Your task to perform on an android device: Add razer huntsman to the cart on target Image 0: 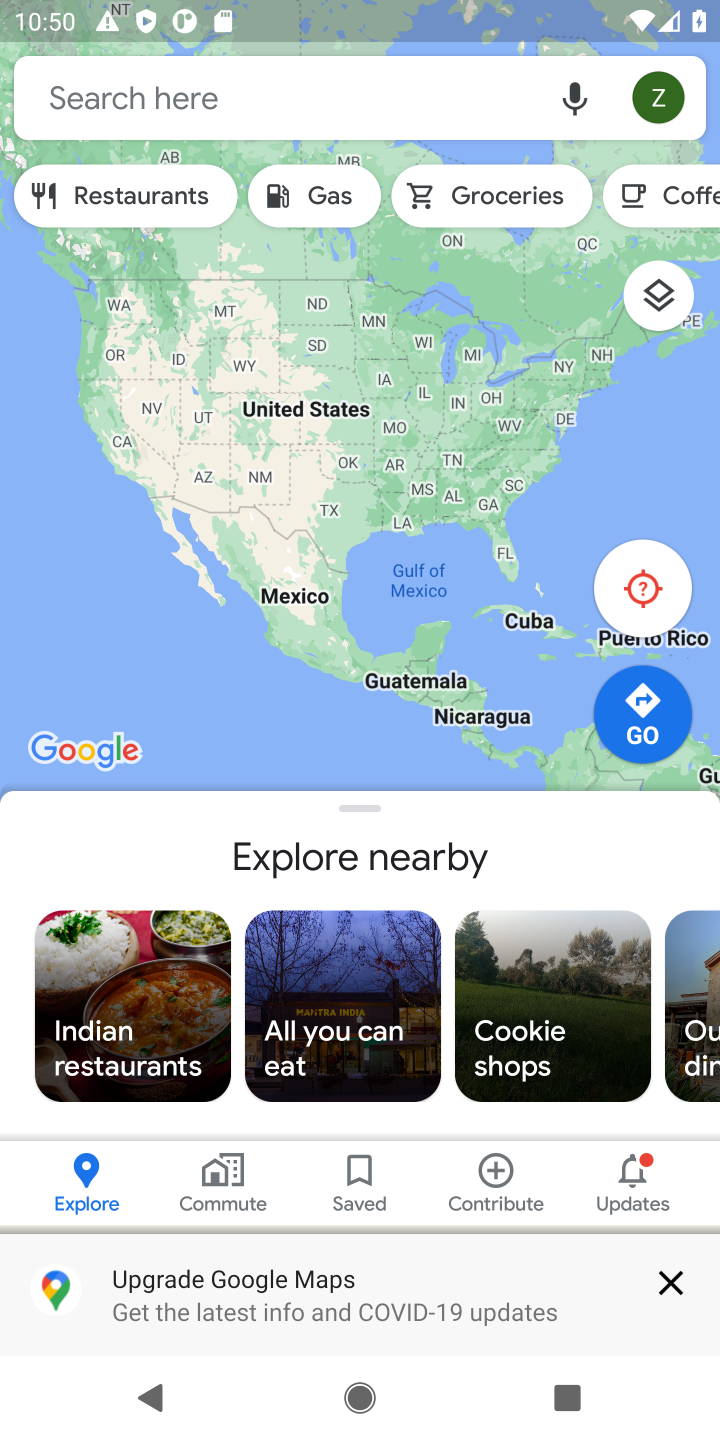
Step 0: press home button
Your task to perform on an android device: Add razer huntsman to the cart on target Image 1: 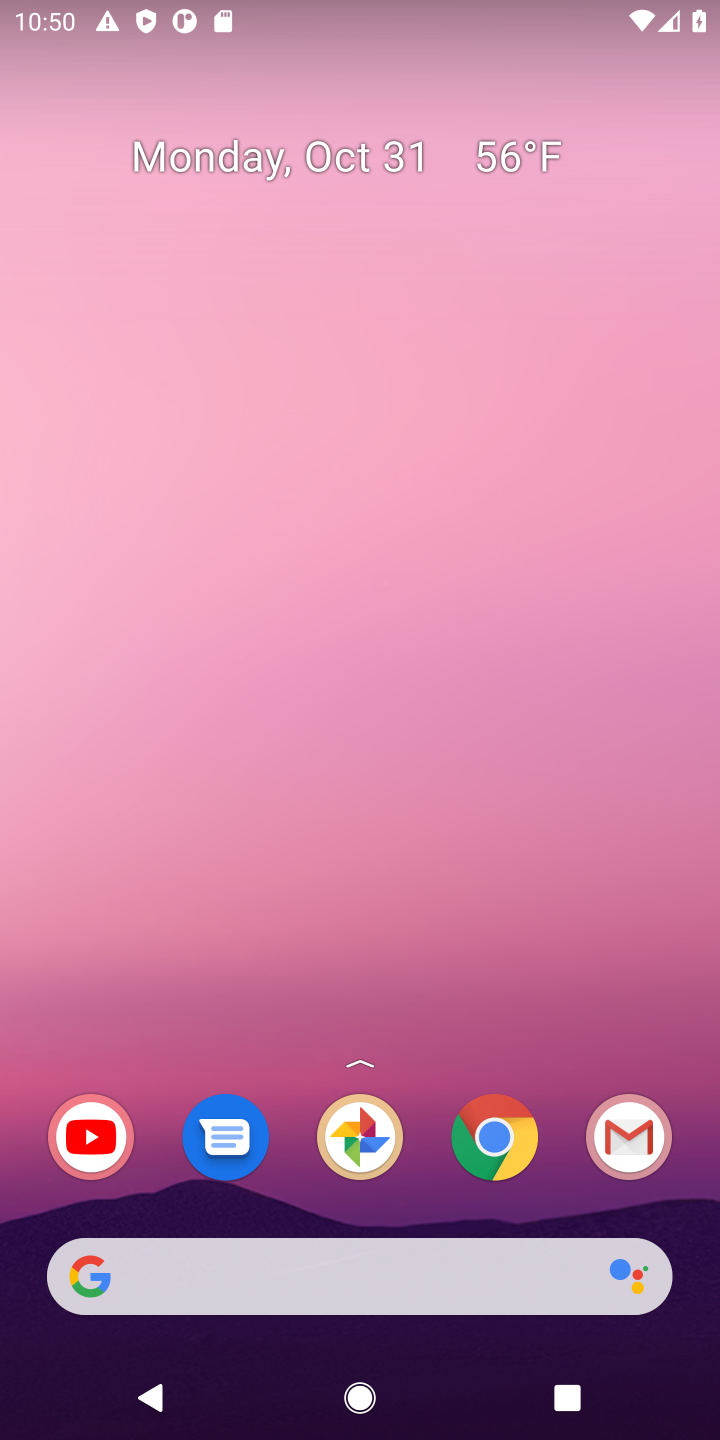
Step 1: click (496, 1140)
Your task to perform on an android device: Add razer huntsman to the cart on target Image 2: 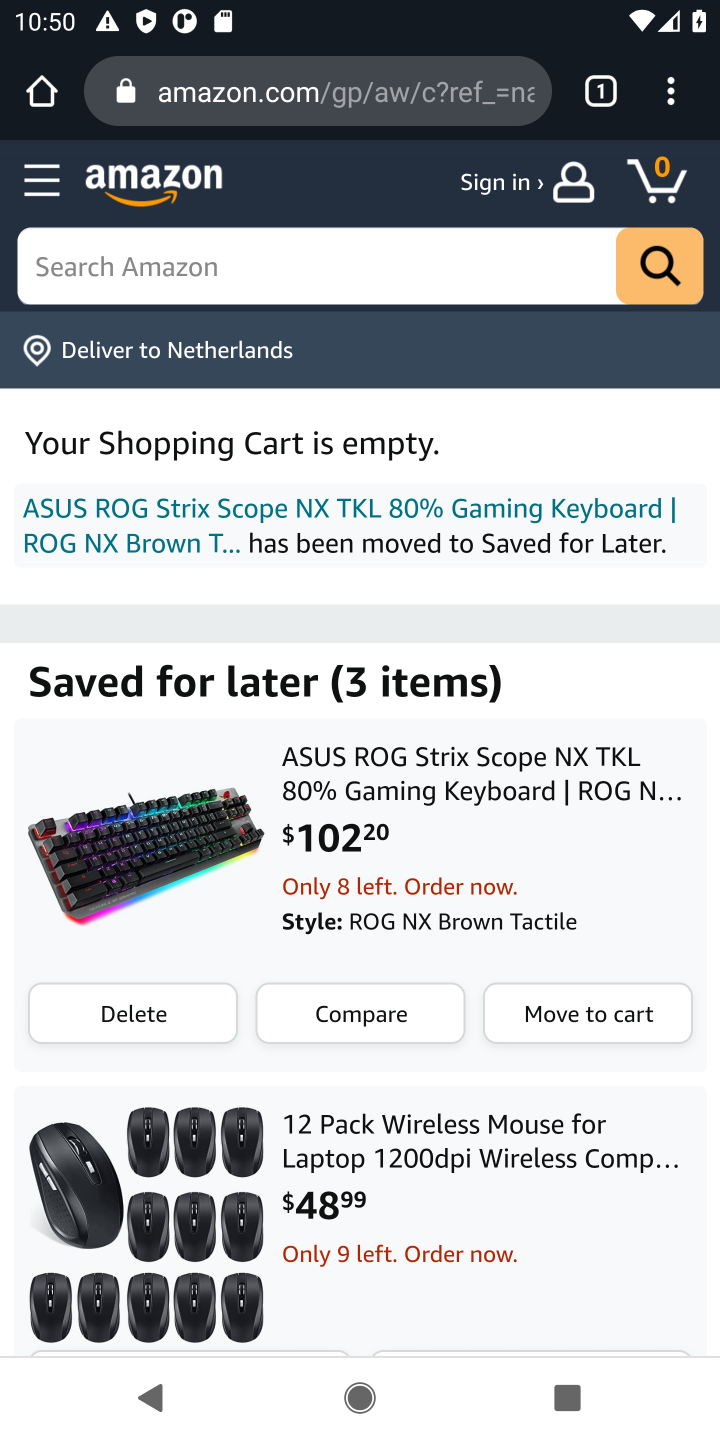
Step 2: click (290, 97)
Your task to perform on an android device: Add razer huntsman to the cart on target Image 3: 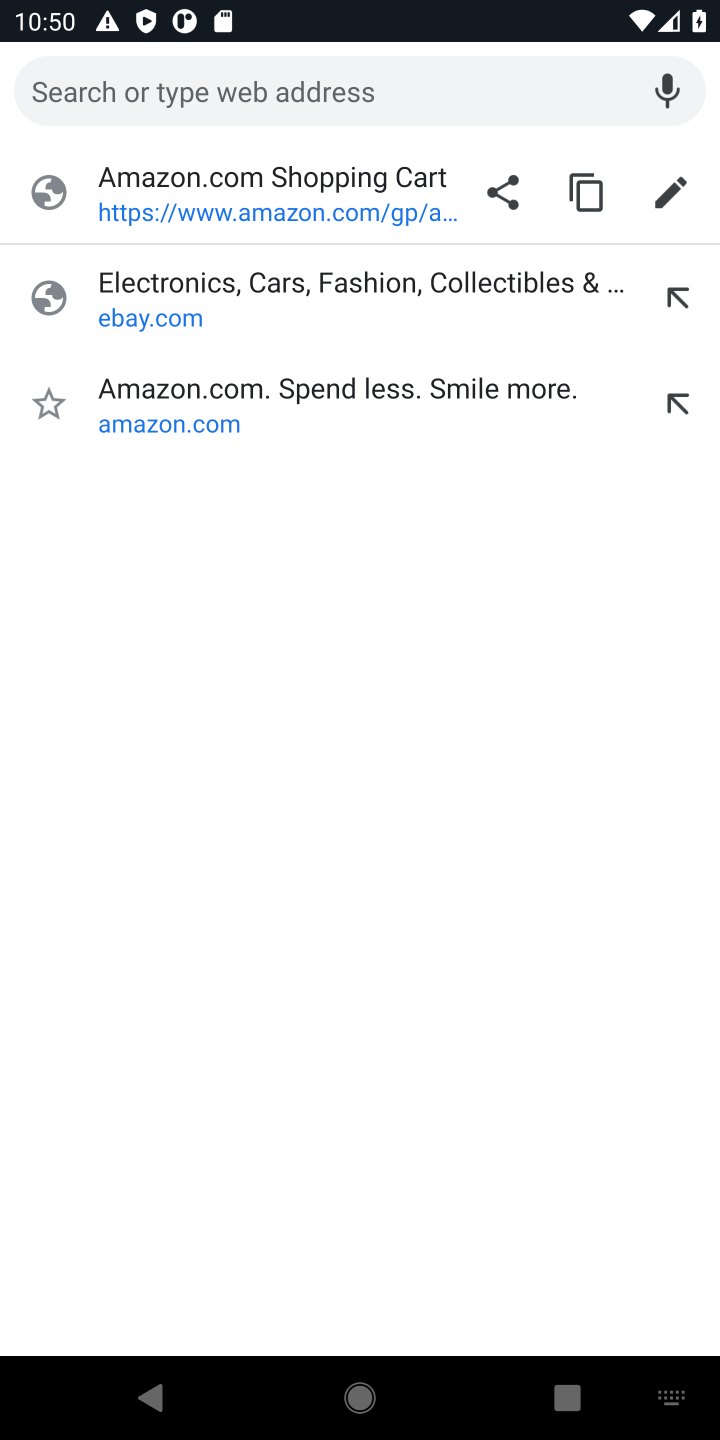
Step 3: type "target"
Your task to perform on an android device: Add razer huntsman to the cart on target Image 4: 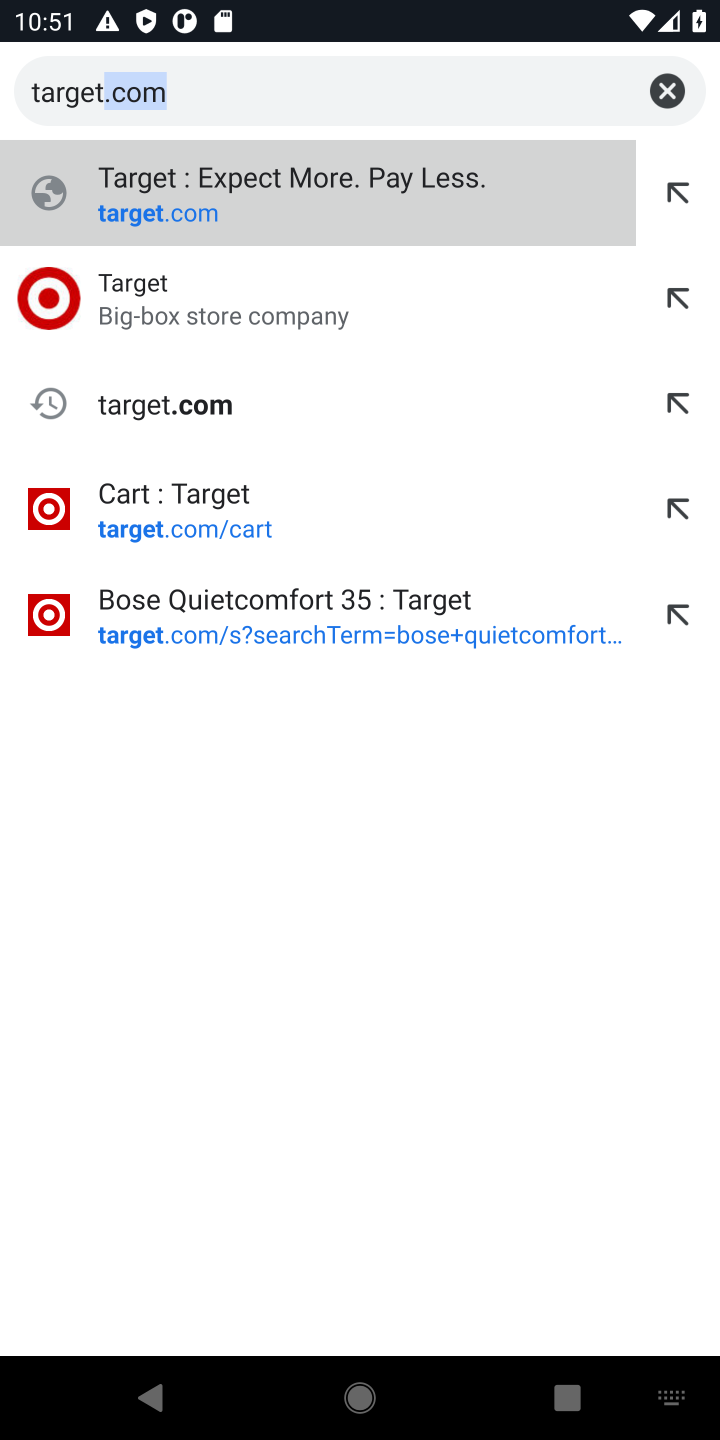
Step 4: click (109, 298)
Your task to perform on an android device: Add razer huntsman to the cart on target Image 5: 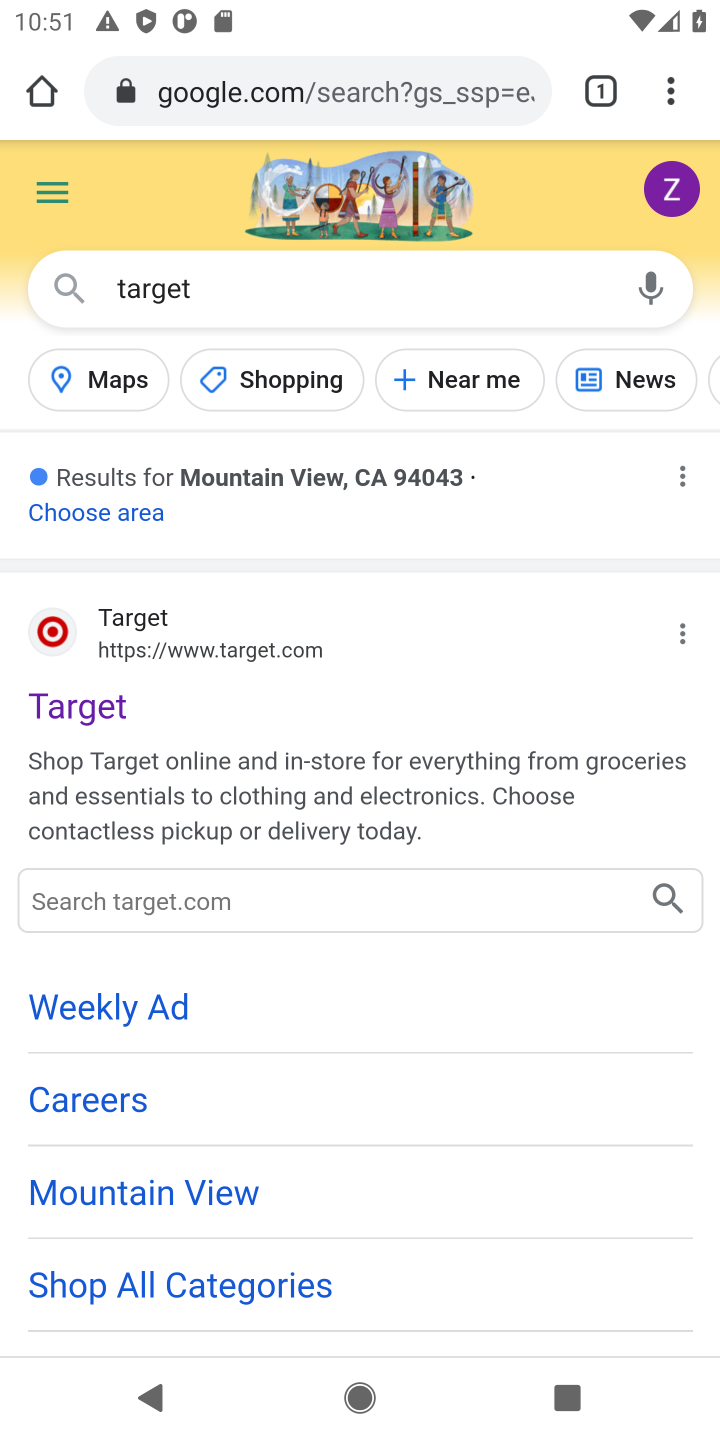
Step 5: click (161, 648)
Your task to perform on an android device: Add razer huntsman to the cart on target Image 6: 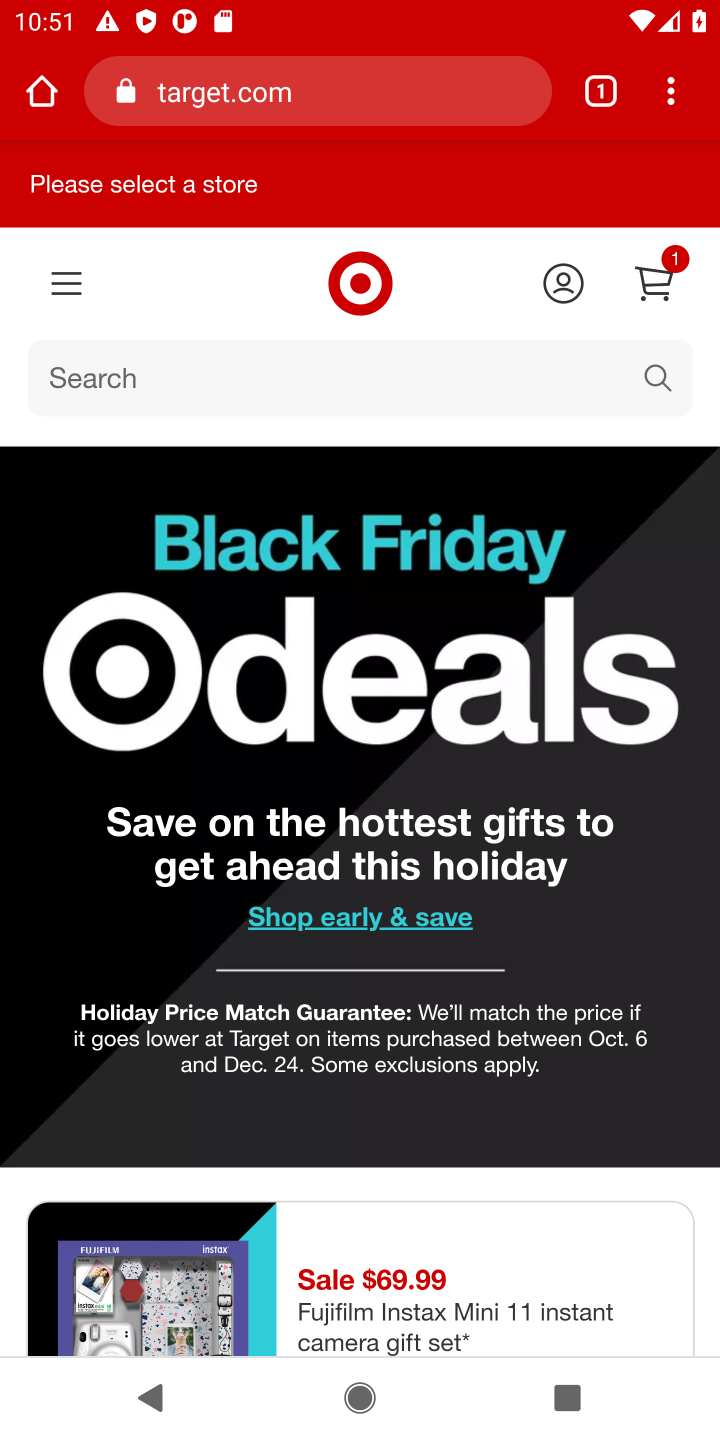
Step 6: click (307, 372)
Your task to perform on an android device: Add razer huntsman to the cart on target Image 7: 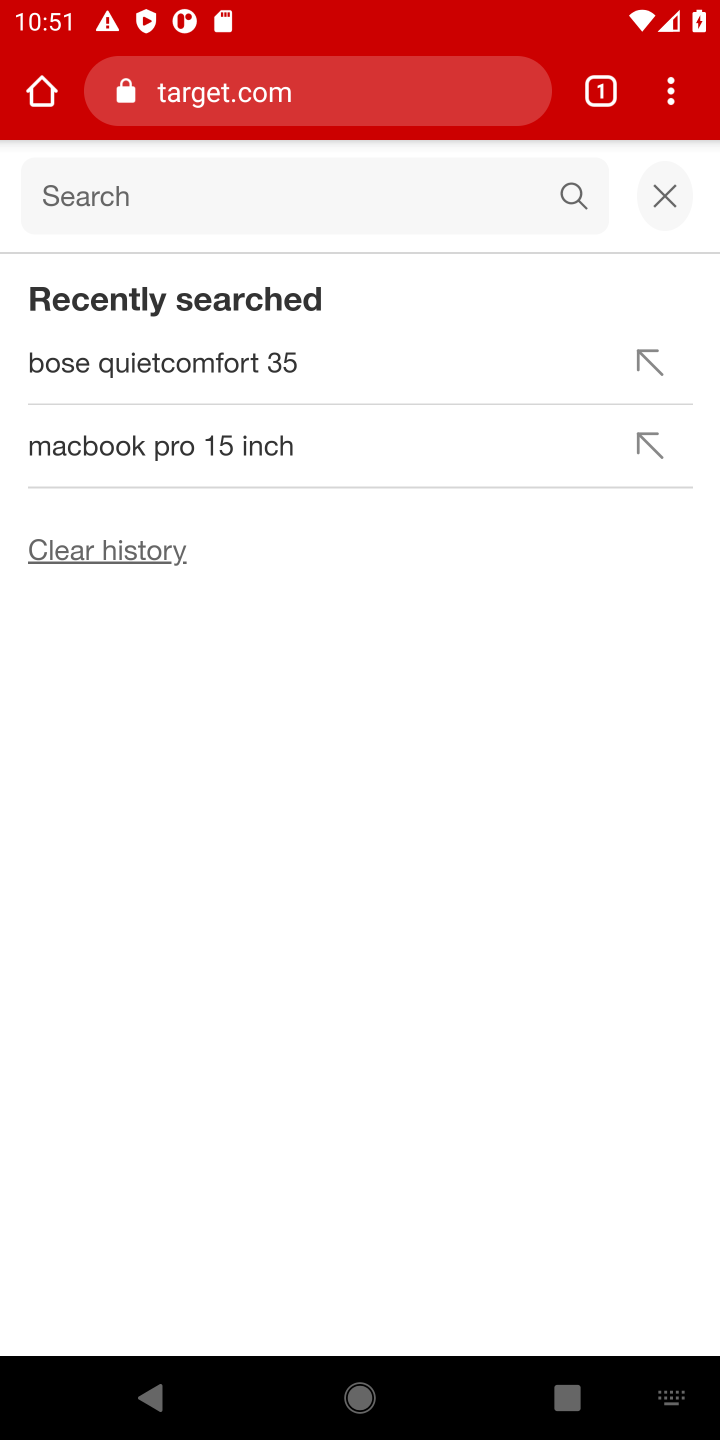
Step 7: type "razer huntsman"
Your task to perform on an android device: Add razer huntsman to the cart on target Image 8: 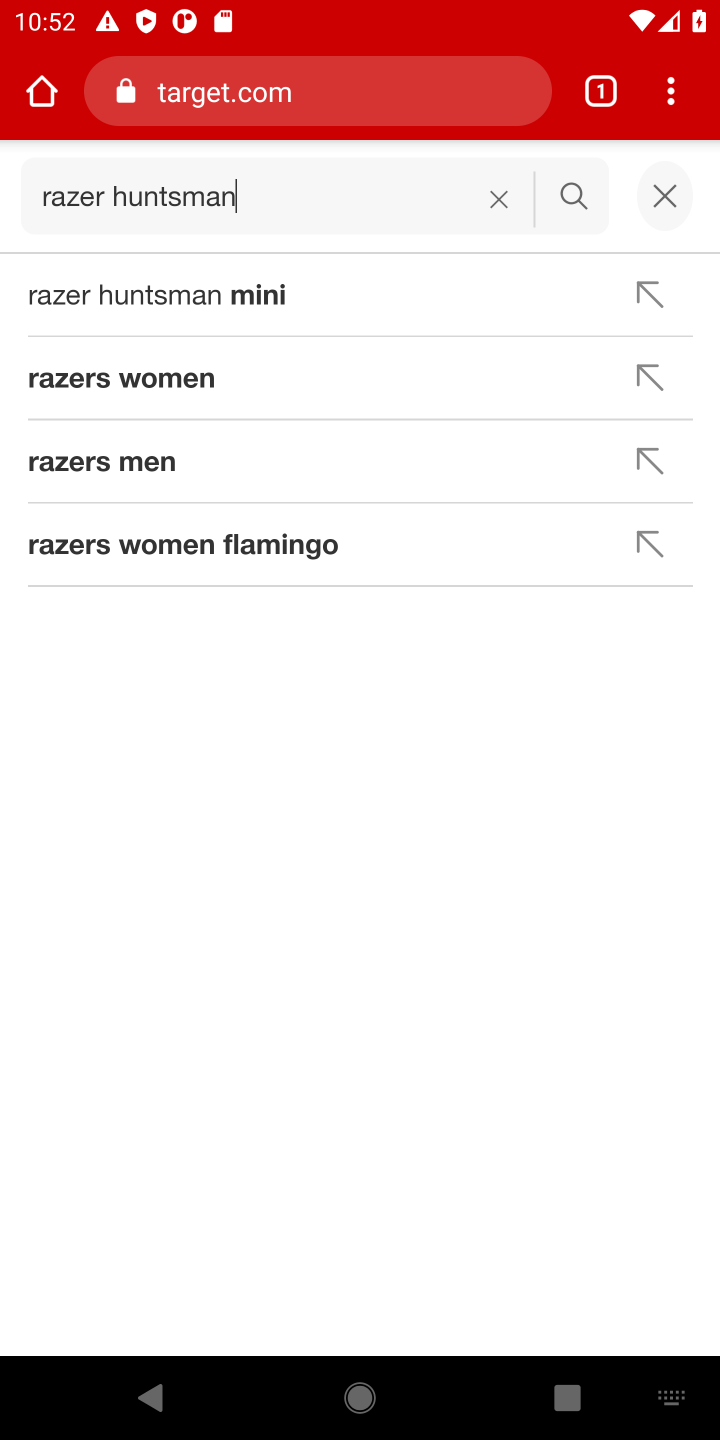
Step 8: click (577, 200)
Your task to perform on an android device: Add razer huntsman to the cart on target Image 9: 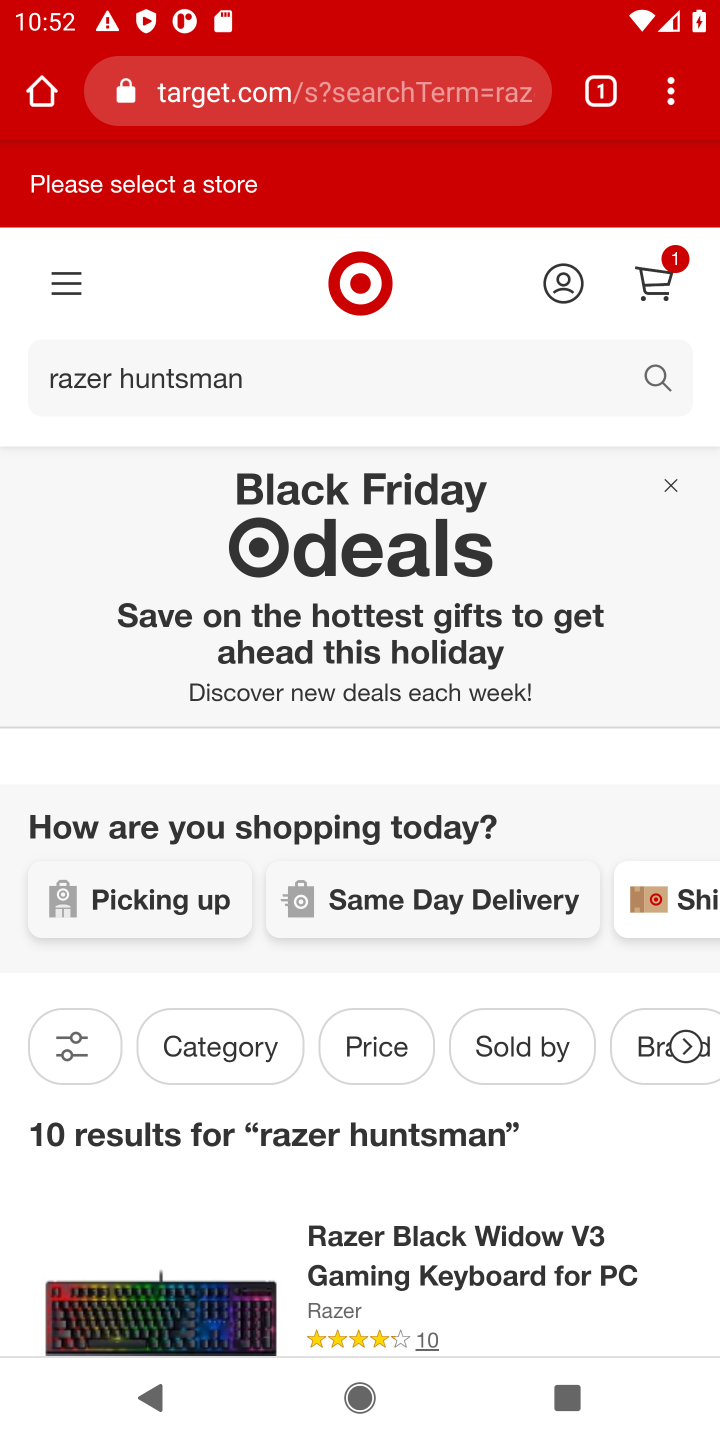
Step 9: drag from (460, 1197) to (509, 680)
Your task to perform on an android device: Add razer huntsman to the cart on target Image 10: 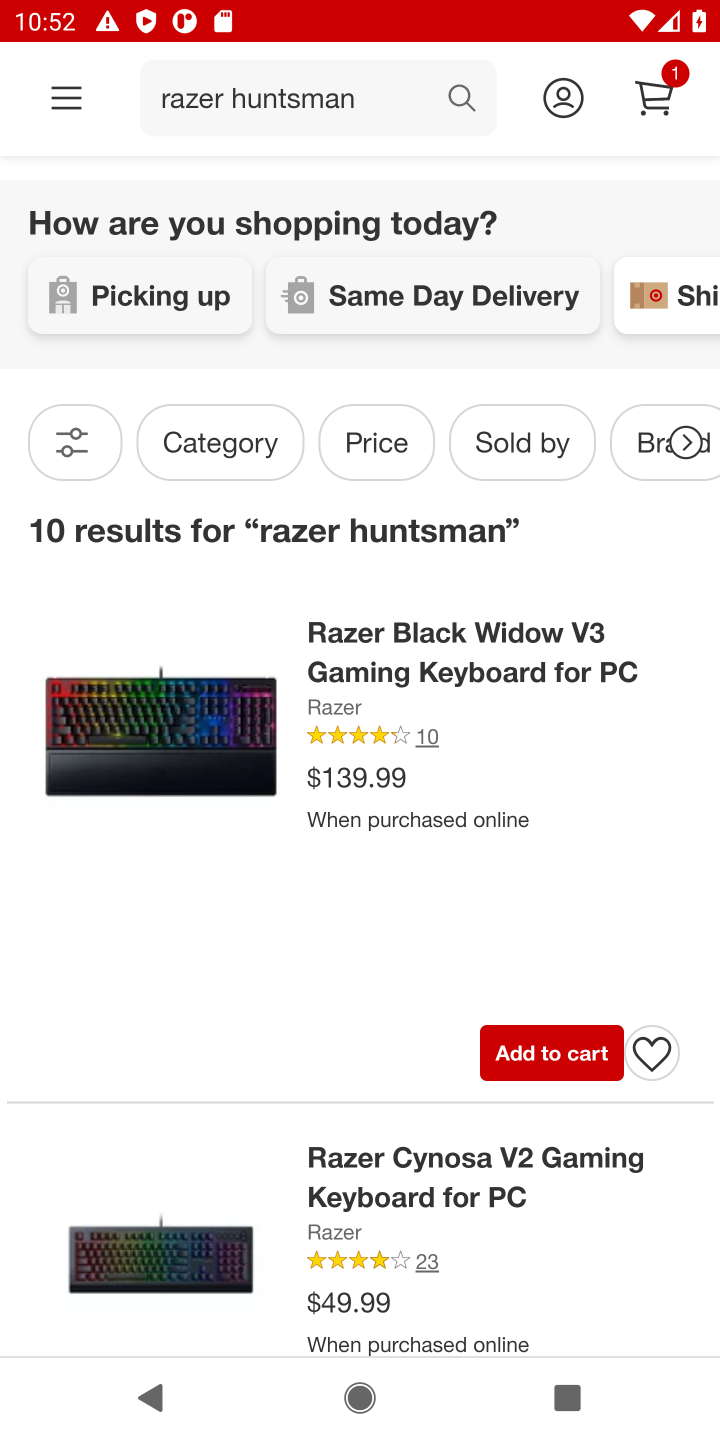
Step 10: click (534, 1062)
Your task to perform on an android device: Add razer huntsman to the cart on target Image 11: 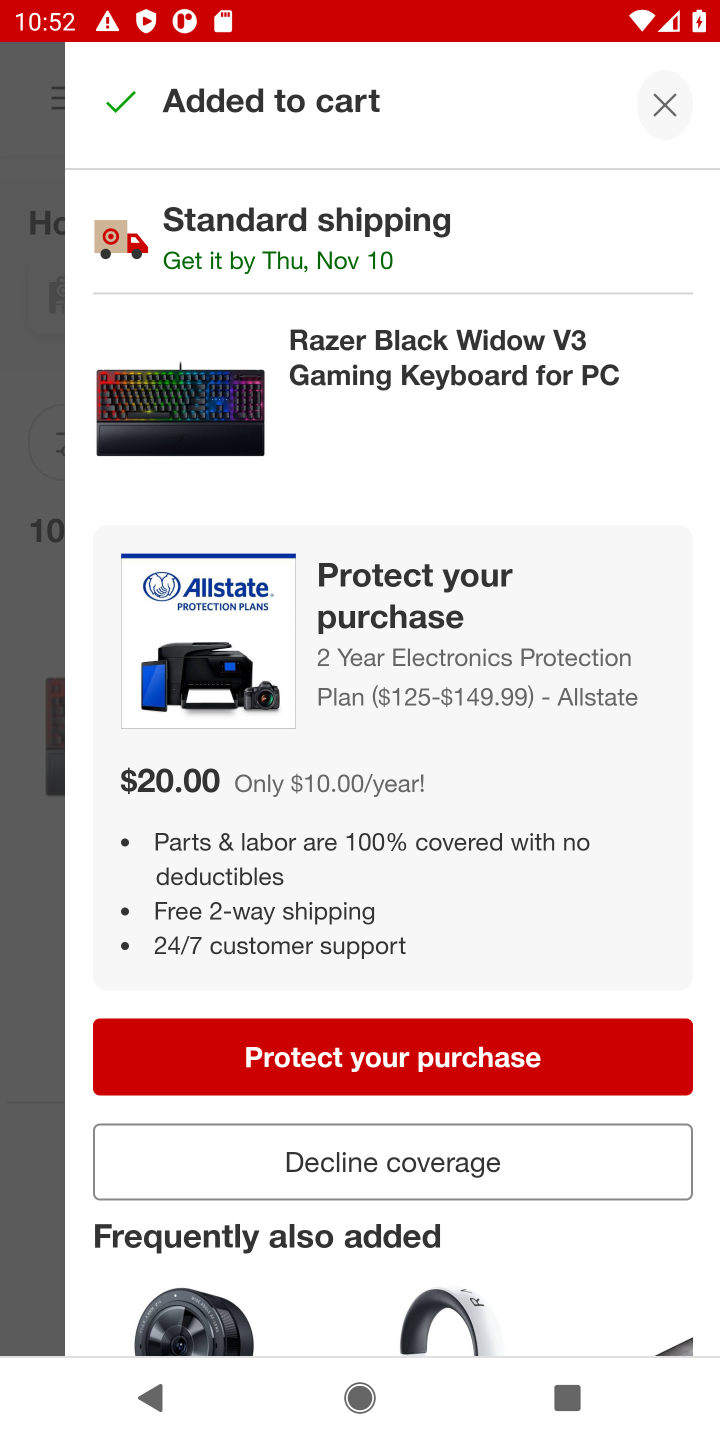
Step 11: click (426, 1163)
Your task to perform on an android device: Add razer huntsman to the cart on target Image 12: 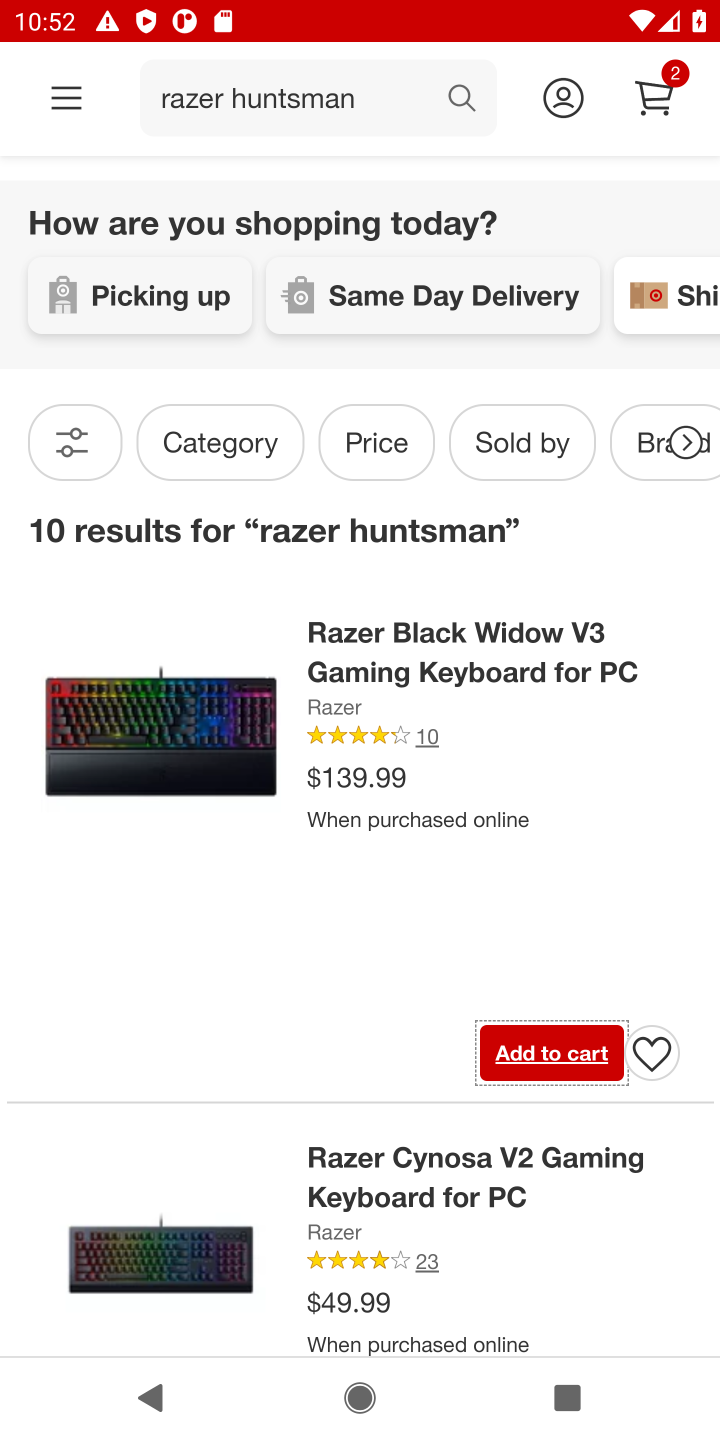
Step 12: task complete